Your task to perform on an android device: Is it going to rain tomorrow? Image 0: 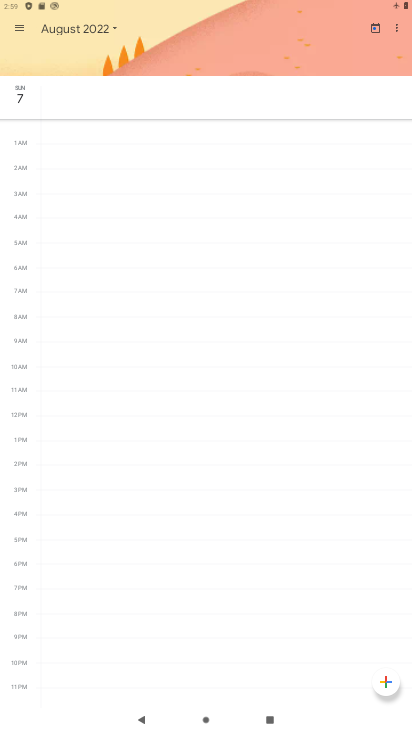
Step 0: press home button
Your task to perform on an android device: Is it going to rain tomorrow? Image 1: 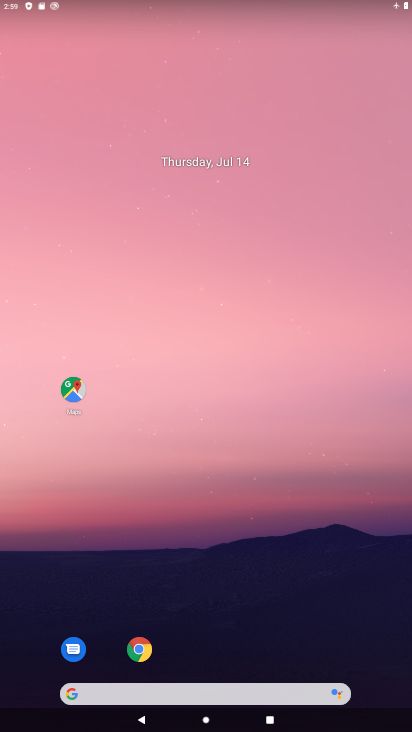
Step 1: drag from (222, 628) to (233, 14)
Your task to perform on an android device: Is it going to rain tomorrow? Image 2: 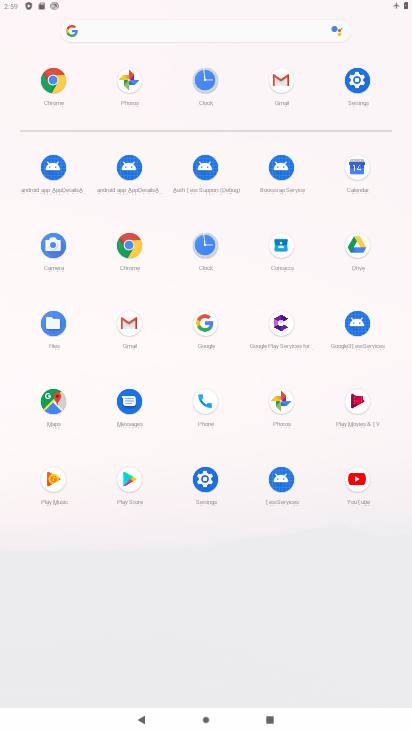
Step 2: click (241, 20)
Your task to perform on an android device: Is it going to rain tomorrow? Image 3: 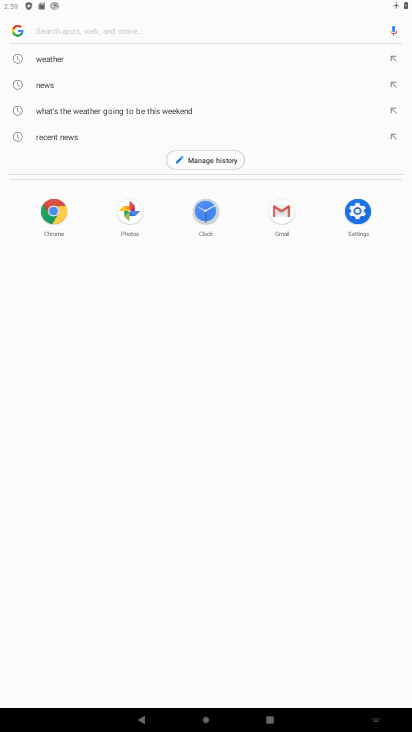
Step 3: click (52, 57)
Your task to perform on an android device: Is it going to rain tomorrow? Image 4: 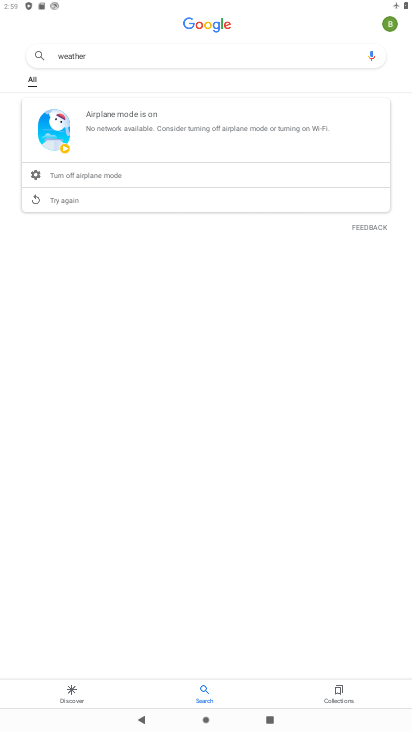
Step 4: task complete